Your task to perform on an android device: manage bookmarks in the chrome app Image 0: 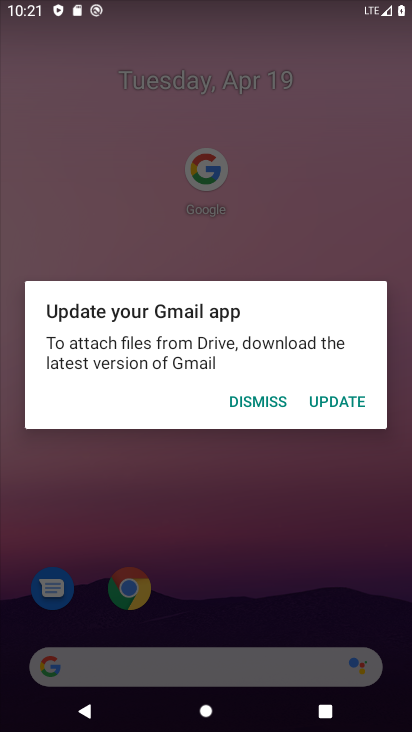
Step 0: press home button
Your task to perform on an android device: manage bookmarks in the chrome app Image 1: 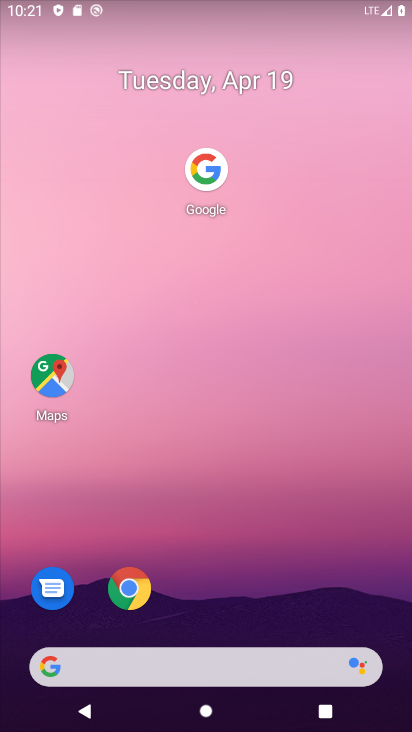
Step 1: click (129, 590)
Your task to perform on an android device: manage bookmarks in the chrome app Image 2: 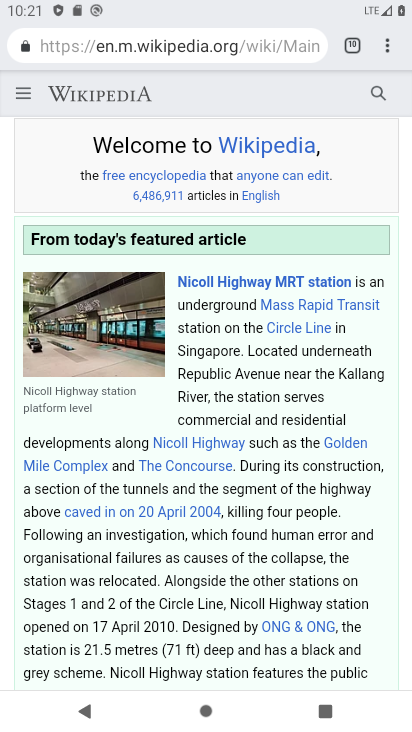
Step 2: click (388, 45)
Your task to perform on an android device: manage bookmarks in the chrome app Image 3: 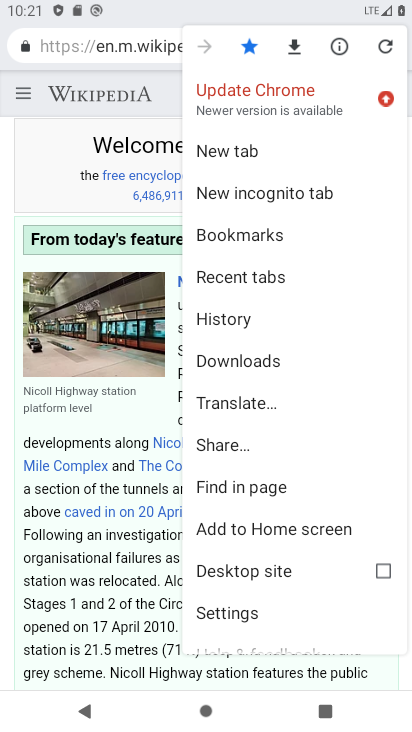
Step 3: click (246, 235)
Your task to perform on an android device: manage bookmarks in the chrome app Image 4: 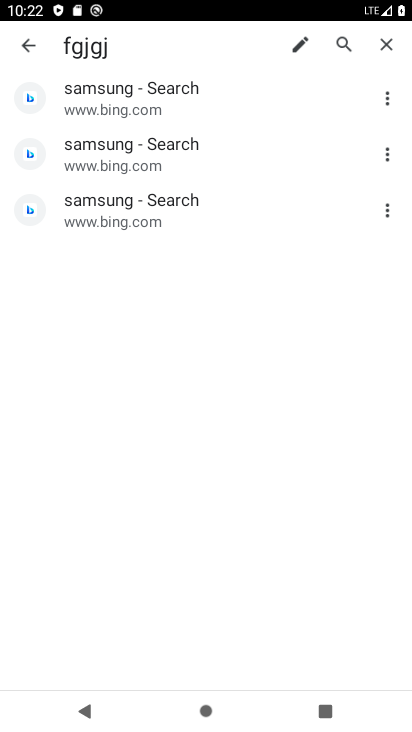
Step 4: click (386, 97)
Your task to perform on an android device: manage bookmarks in the chrome app Image 5: 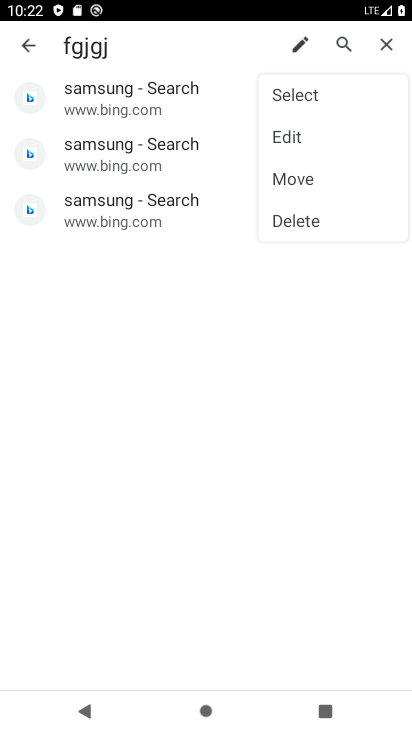
Step 5: task complete